Your task to perform on an android device: add a contact in the contacts app Image 0: 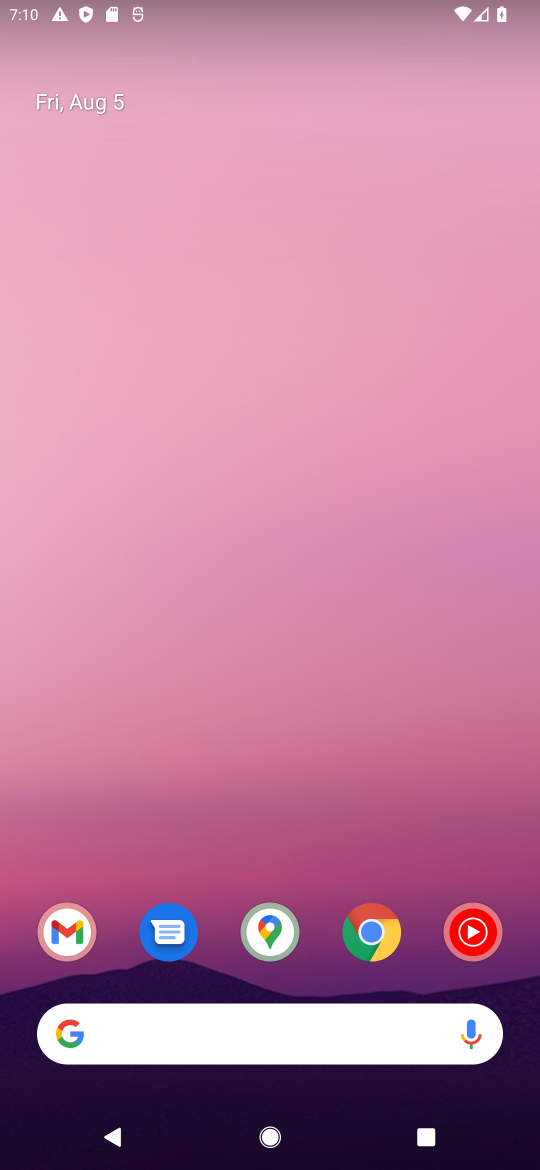
Step 0: drag from (209, 1049) to (235, 330)
Your task to perform on an android device: add a contact in the contacts app Image 1: 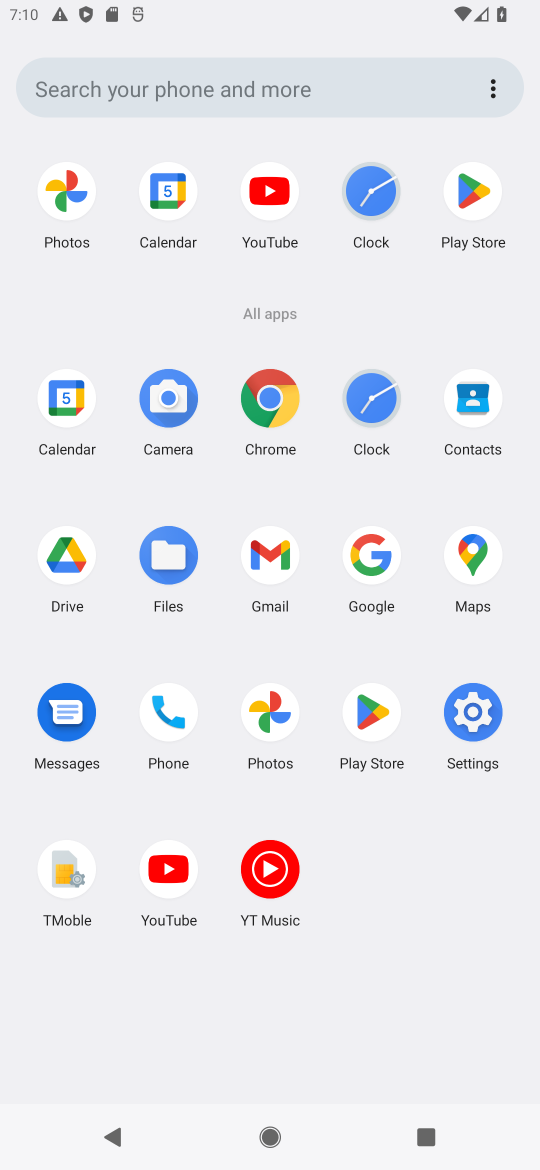
Step 1: click (472, 404)
Your task to perform on an android device: add a contact in the contacts app Image 2: 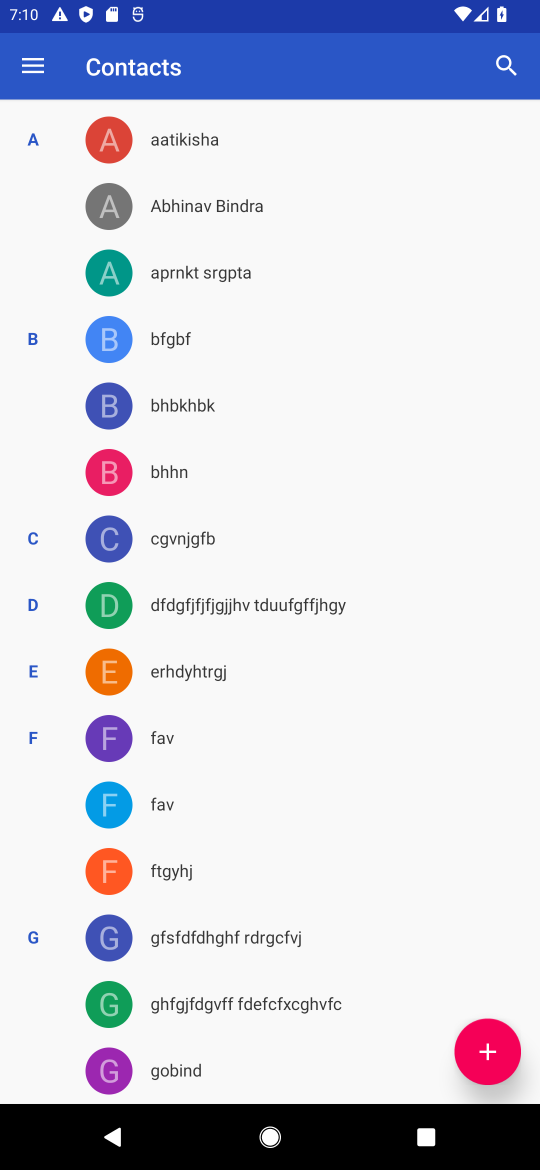
Step 2: click (488, 1054)
Your task to perform on an android device: add a contact in the contacts app Image 3: 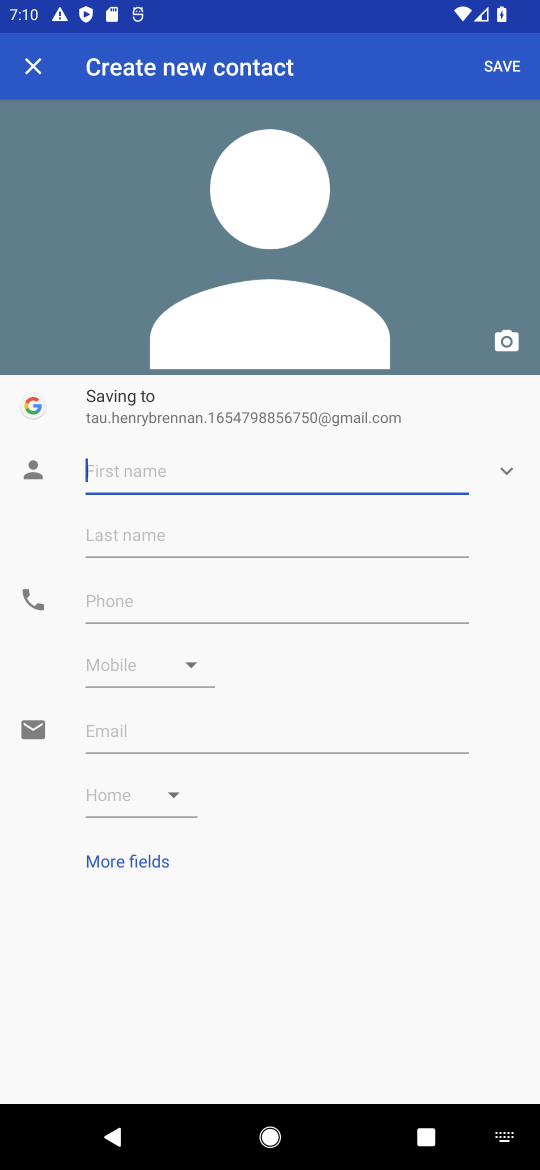
Step 3: click (235, 477)
Your task to perform on an android device: add a contact in the contacts app Image 4: 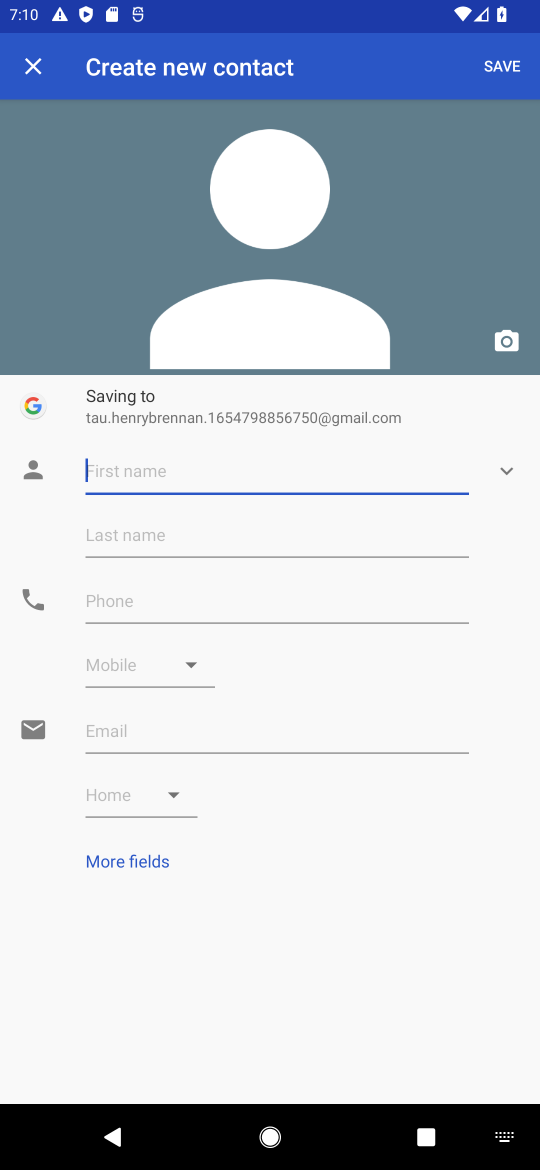
Step 4: click (381, 468)
Your task to perform on an android device: add a contact in the contacts app Image 5: 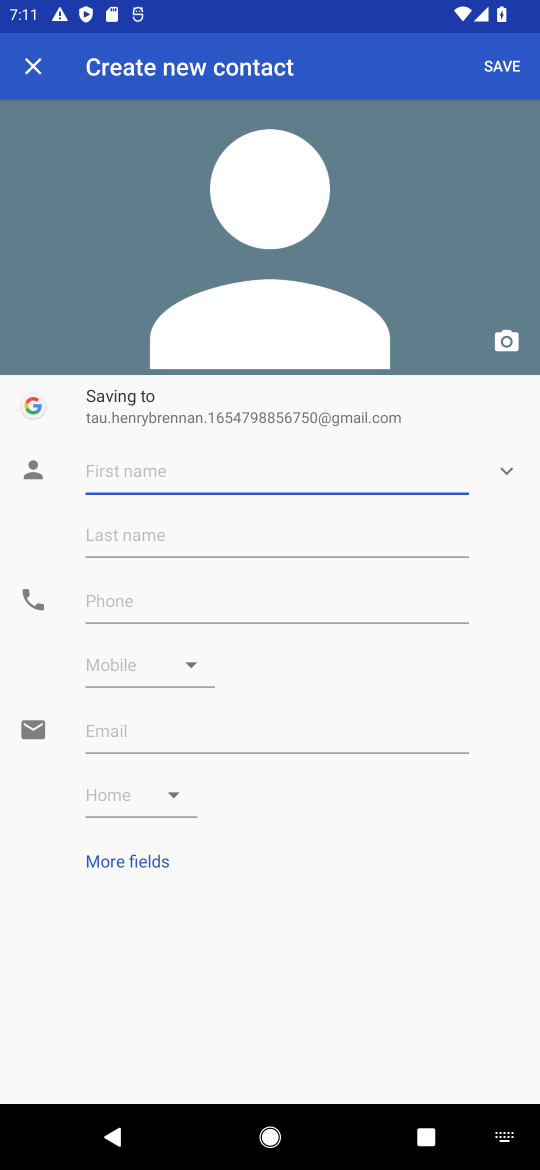
Step 5: type "Guruji"
Your task to perform on an android device: add a contact in the contacts app Image 6: 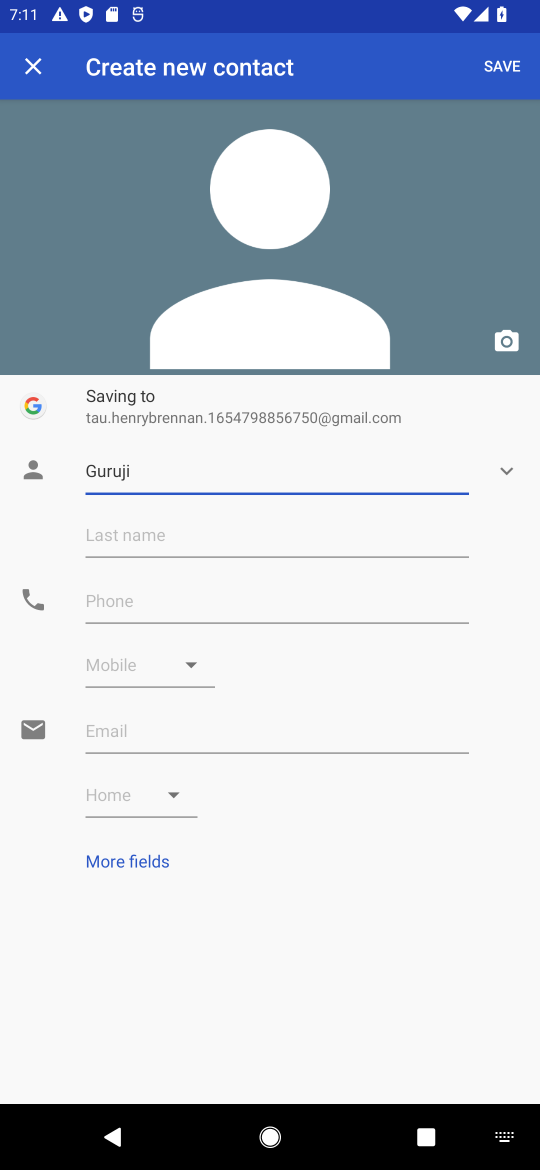
Step 6: click (308, 540)
Your task to perform on an android device: add a contact in the contacts app Image 7: 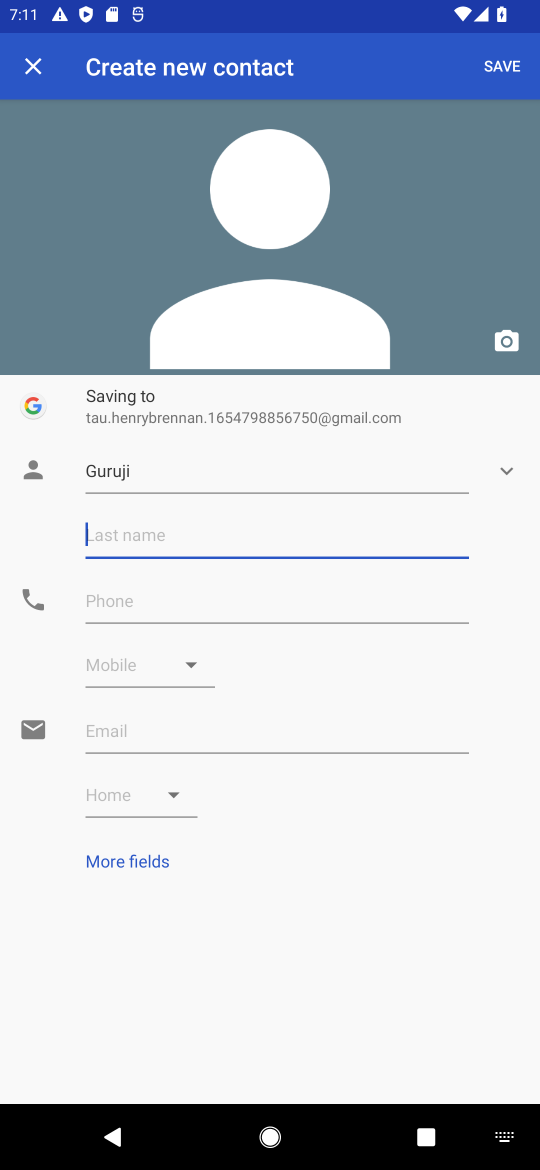
Step 7: type "Tripathi"
Your task to perform on an android device: add a contact in the contacts app Image 8: 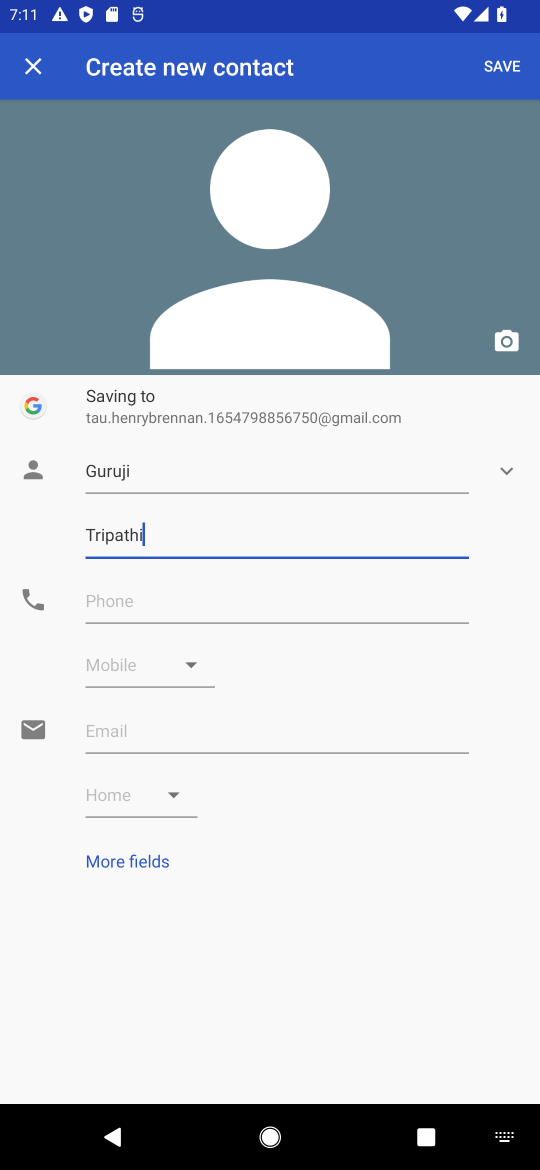
Step 8: click (104, 602)
Your task to perform on an android device: add a contact in the contacts app Image 9: 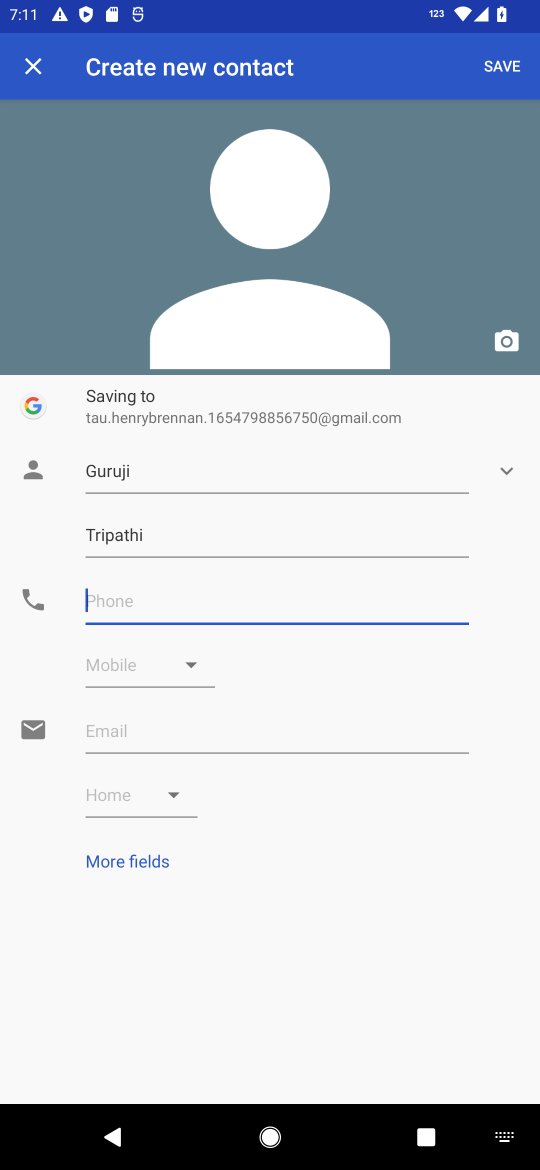
Step 9: type "09988776655"
Your task to perform on an android device: add a contact in the contacts app Image 10: 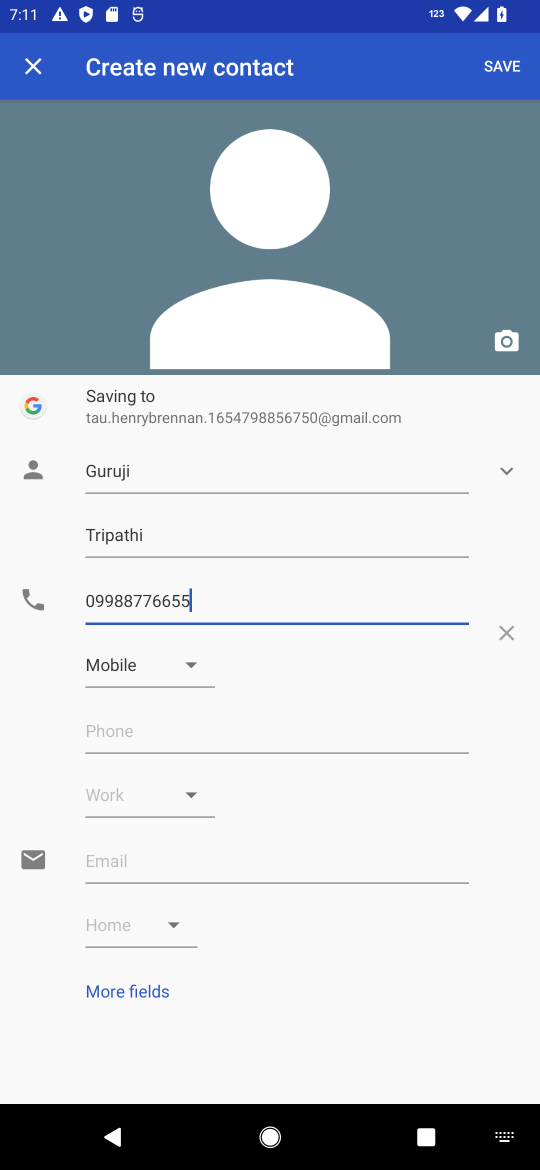
Step 10: click (497, 62)
Your task to perform on an android device: add a contact in the contacts app Image 11: 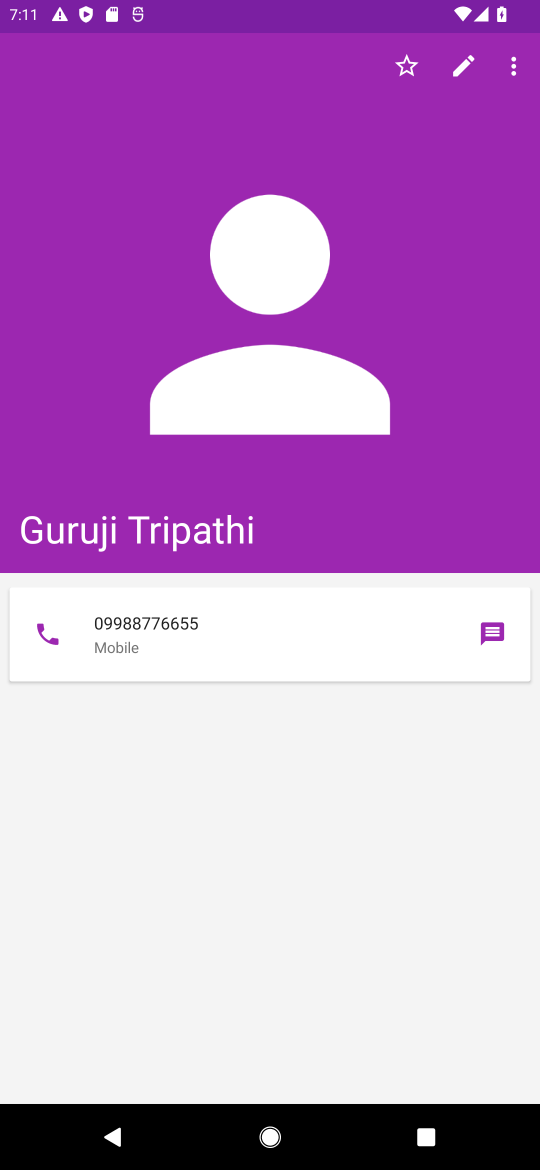
Step 11: task complete